Your task to perform on an android device: Do I have any events tomorrow? Image 0: 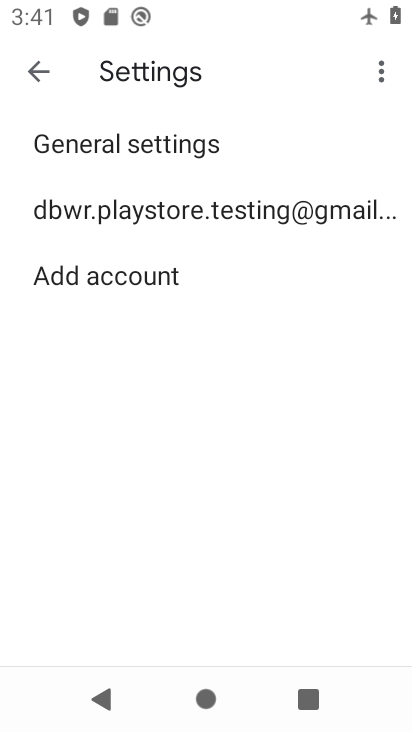
Step 0: press home button
Your task to perform on an android device: Do I have any events tomorrow? Image 1: 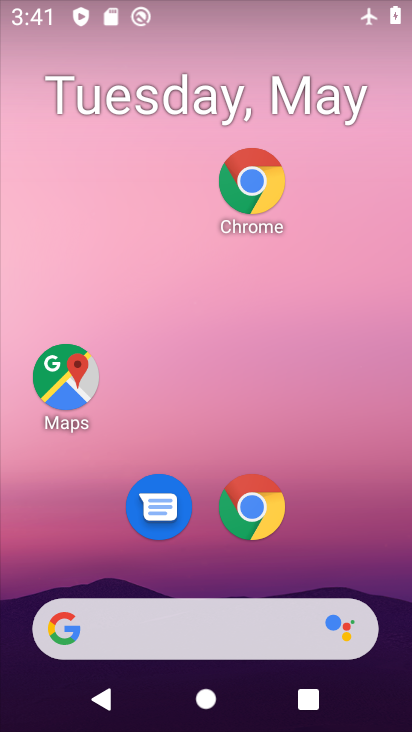
Step 1: drag from (354, 532) to (351, 94)
Your task to perform on an android device: Do I have any events tomorrow? Image 2: 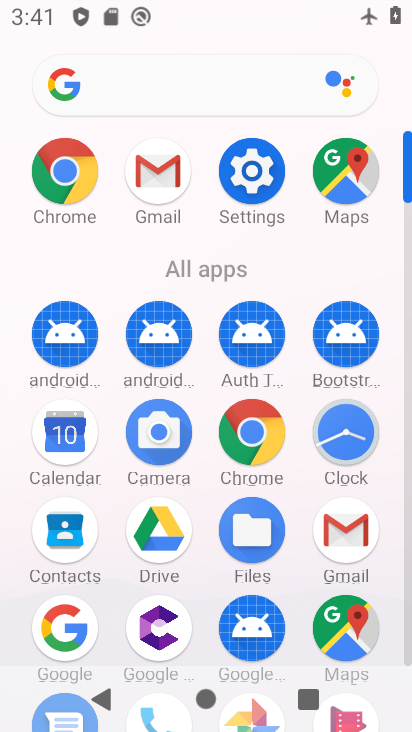
Step 2: click (83, 451)
Your task to perform on an android device: Do I have any events tomorrow? Image 3: 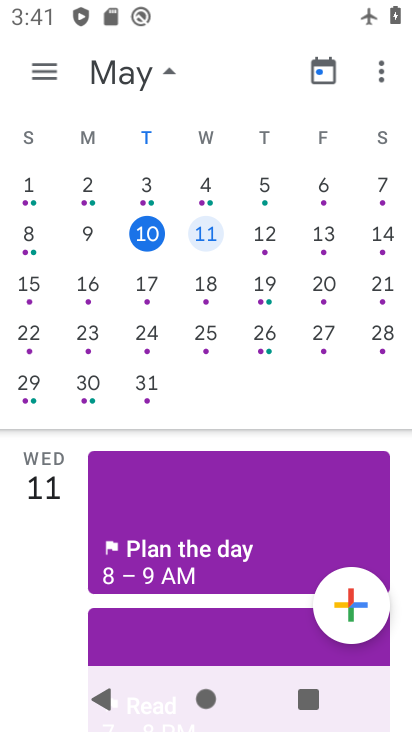
Step 3: click (209, 229)
Your task to perform on an android device: Do I have any events tomorrow? Image 4: 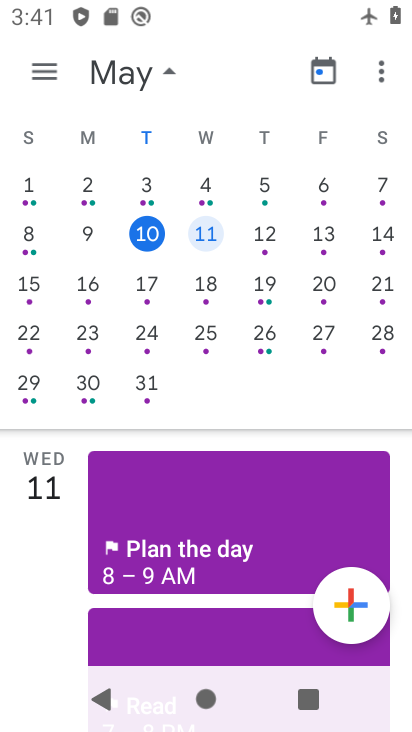
Step 4: task complete